Your task to perform on an android device: turn on javascript in the chrome app Image 0: 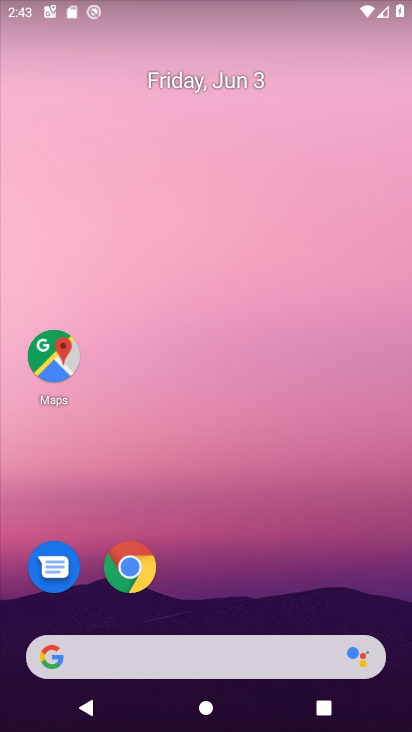
Step 0: drag from (214, 608) to (220, 224)
Your task to perform on an android device: turn on javascript in the chrome app Image 1: 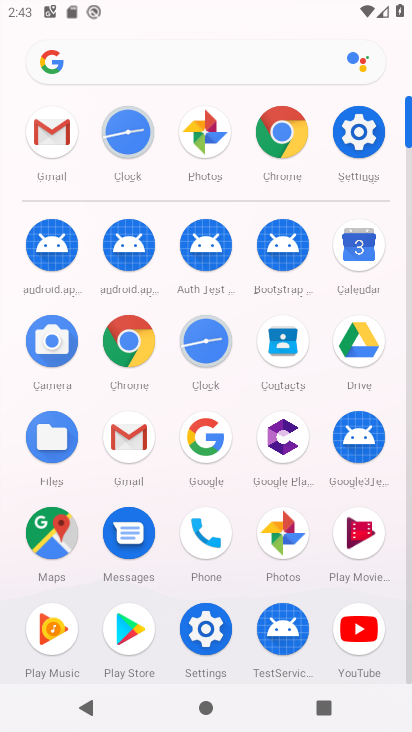
Step 1: click (136, 334)
Your task to perform on an android device: turn on javascript in the chrome app Image 2: 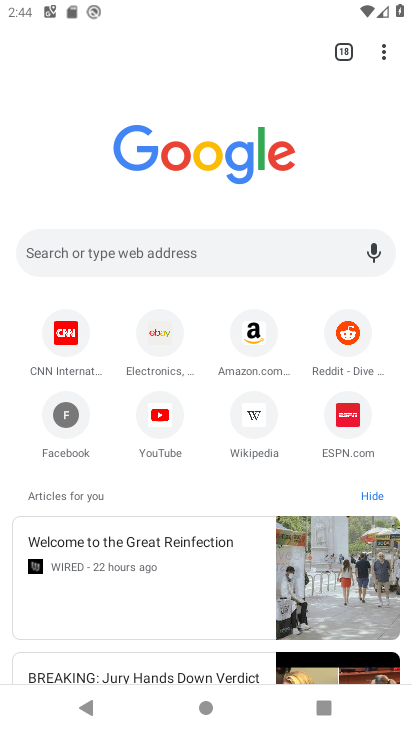
Step 2: click (385, 56)
Your task to perform on an android device: turn on javascript in the chrome app Image 3: 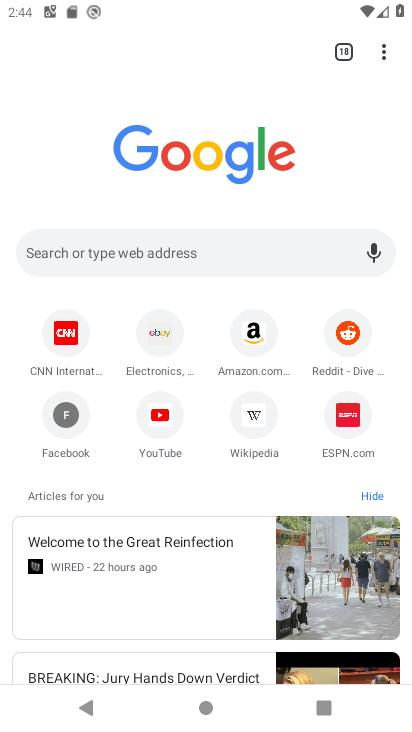
Step 3: click (379, 47)
Your task to perform on an android device: turn on javascript in the chrome app Image 4: 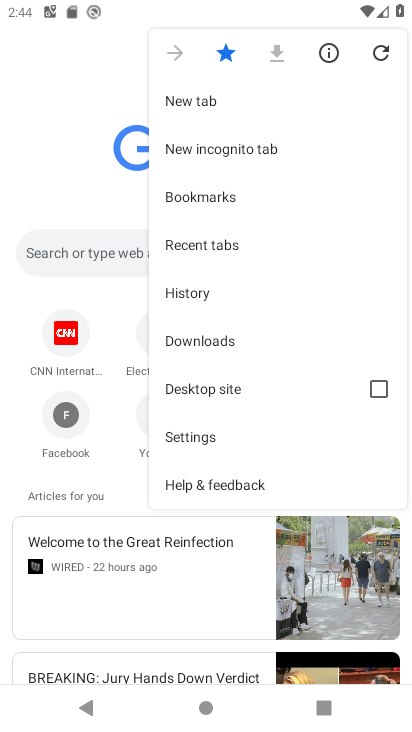
Step 4: click (216, 434)
Your task to perform on an android device: turn on javascript in the chrome app Image 5: 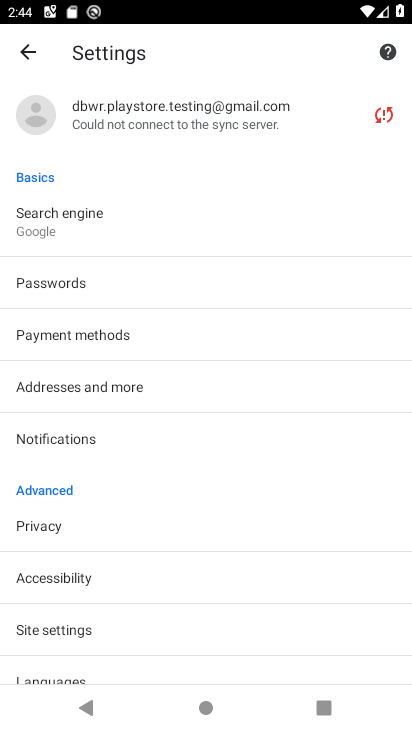
Step 5: drag from (177, 587) to (201, 233)
Your task to perform on an android device: turn on javascript in the chrome app Image 6: 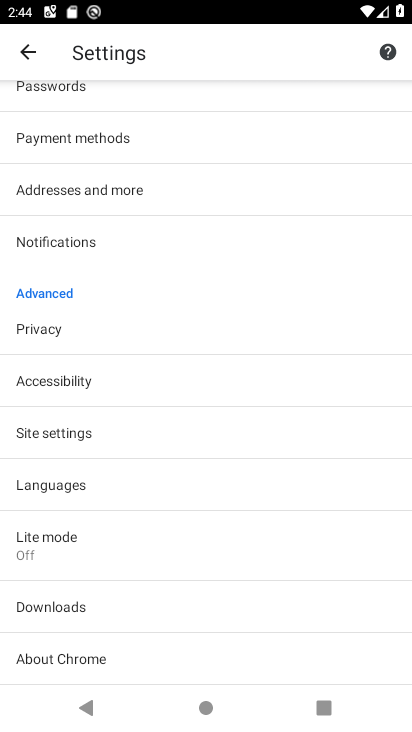
Step 6: click (112, 427)
Your task to perform on an android device: turn on javascript in the chrome app Image 7: 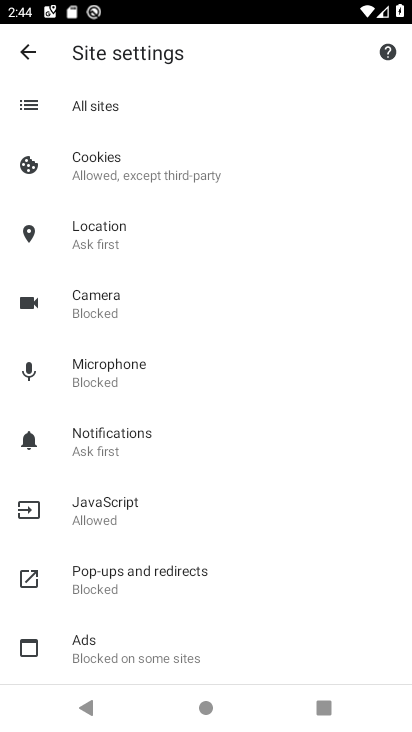
Step 7: click (120, 509)
Your task to perform on an android device: turn on javascript in the chrome app Image 8: 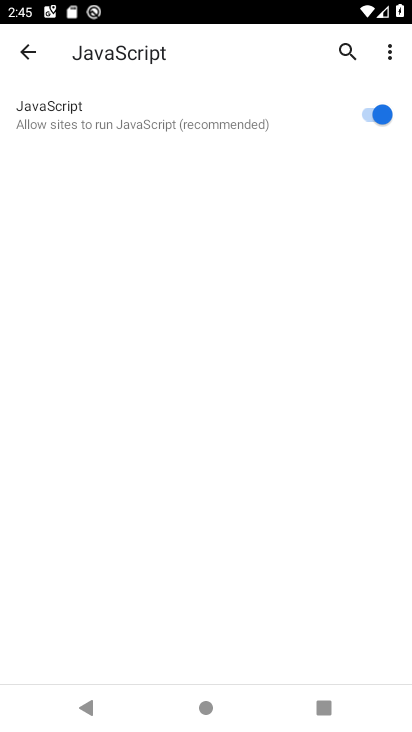
Step 8: task complete